Your task to perform on an android device: make emails show in primary in the gmail app Image 0: 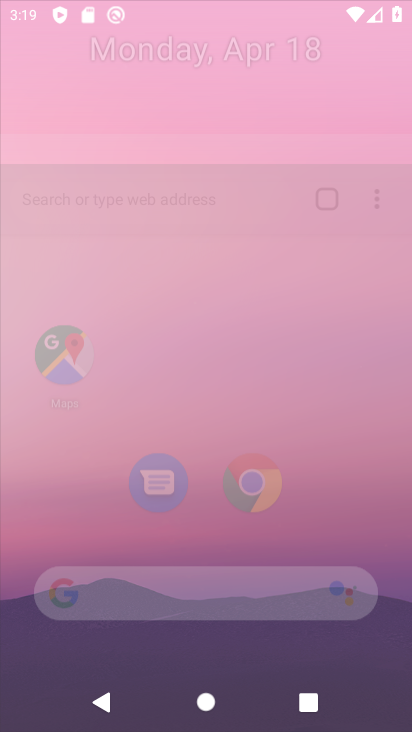
Step 0: click (242, 627)
Your task to perform on an android device: make emails show in primary in the gmail app Image 1: 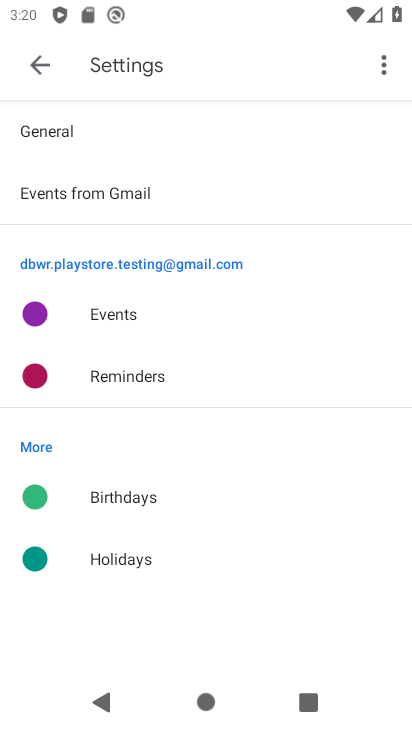
Step 1: press home button
Your task to perform on an android device: make emails show in primary in the gmail app Image 2: 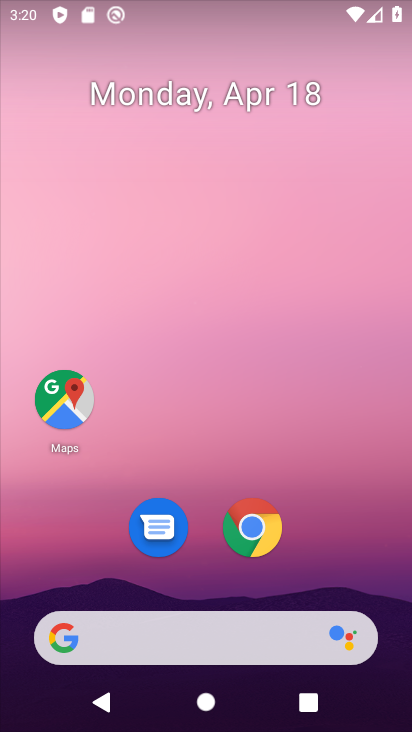
Step 2: drag from (170, 621) to (193, 93)
Your task to perform on an android device: make emails show in primary in the gmail app Image 3: 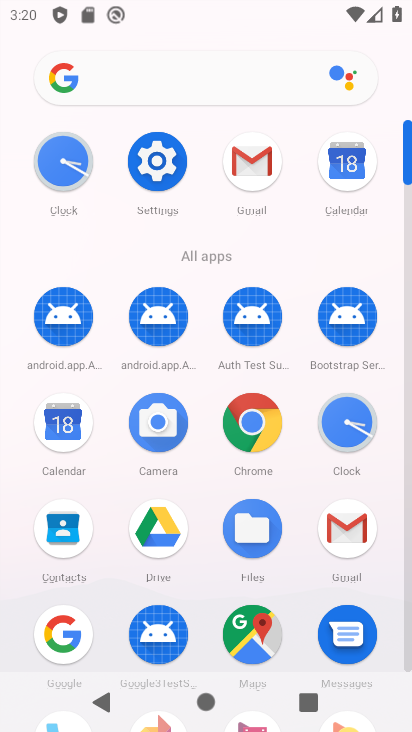
Step 3: click (337, 532)
Your task to perform on an android device: make emails show in primary in the gmail app Image 4: 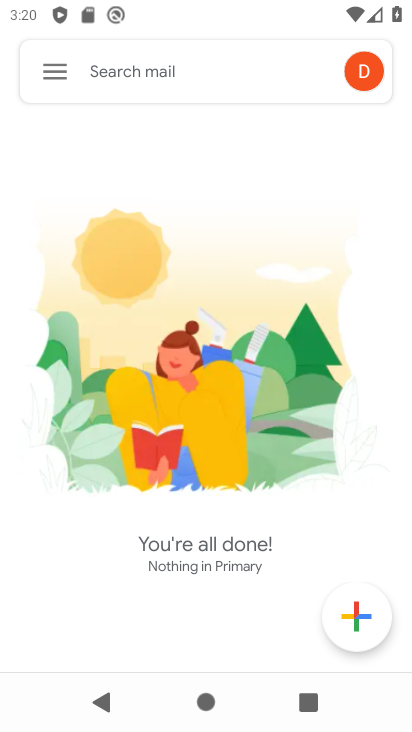
Step 4: click (61, 80)
Your task to perform on an android device: make emails show in primary in the gmail app Image 5: 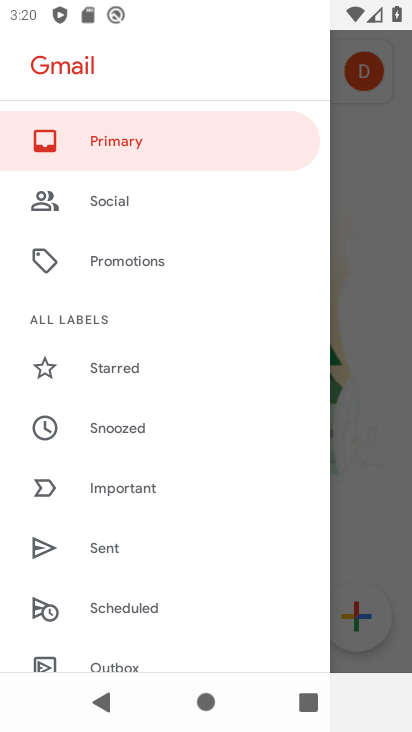
Step 5: drag from (127, 580) to (146, 157)
Your task to perform on an android device: make emails show in primary in the gmail app Image 6: 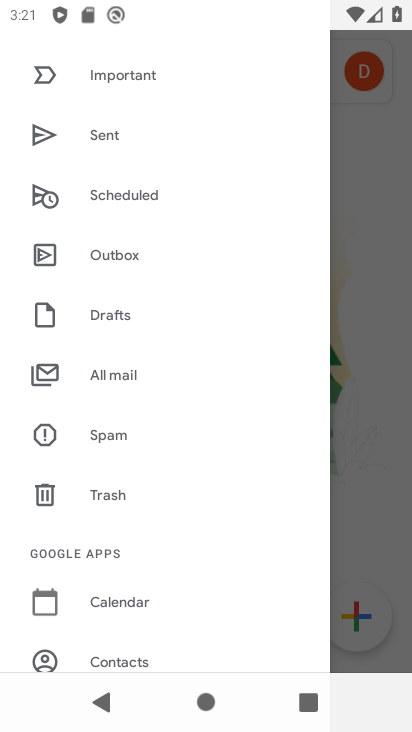
Step 6: drag from (113, 626) to (134, 127)
Your task to perform on an android device: make emails show in primary in the gmail app Image 7: 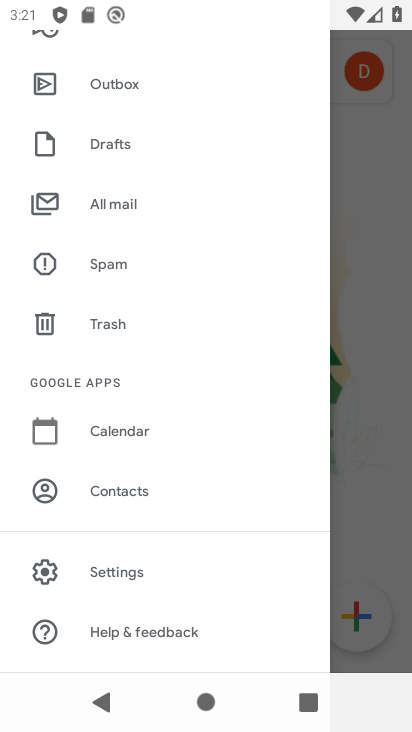
Step 7: click (100, 575)
Your task to perform on an android device: make emails show in primary in the gmail app Image 8: 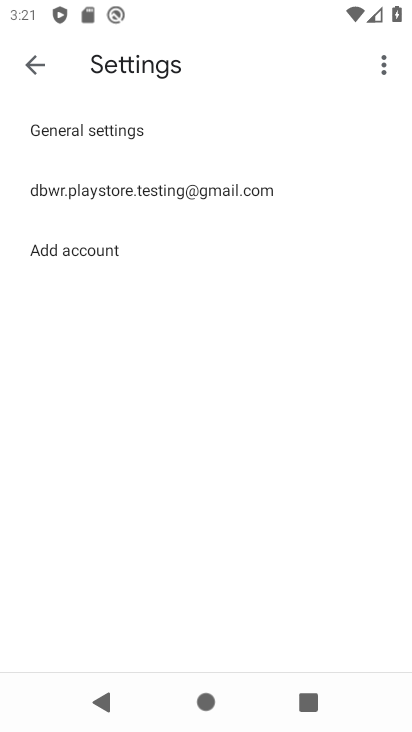
Step 8: click (100, 187)
Your task to perform on an android device: make emails show in primary in the gmail app Image 9: 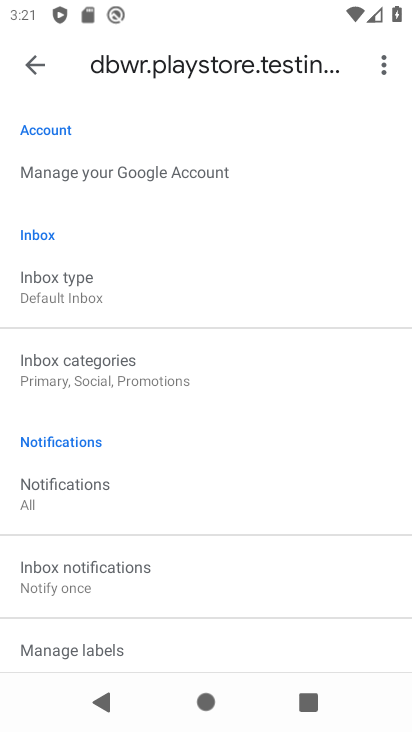
Step 9: click (119, 384)
Your task to perform on an android device: make emails show in primary in the gmail app Image 10: 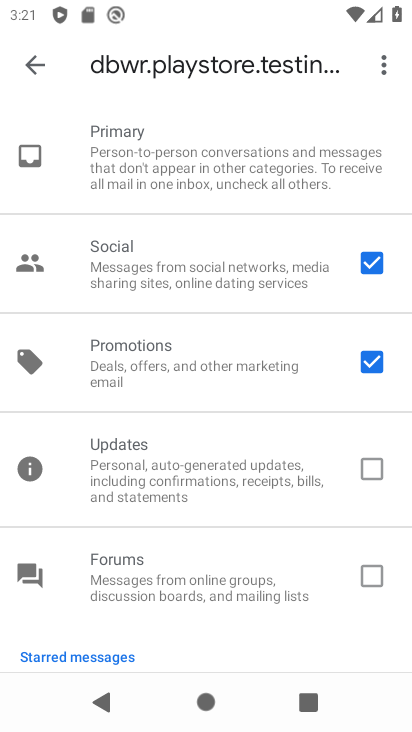
Step 10: click (363, 364)
Your task to perform on an android device: make emails show in primary in the gmail app Image 11: 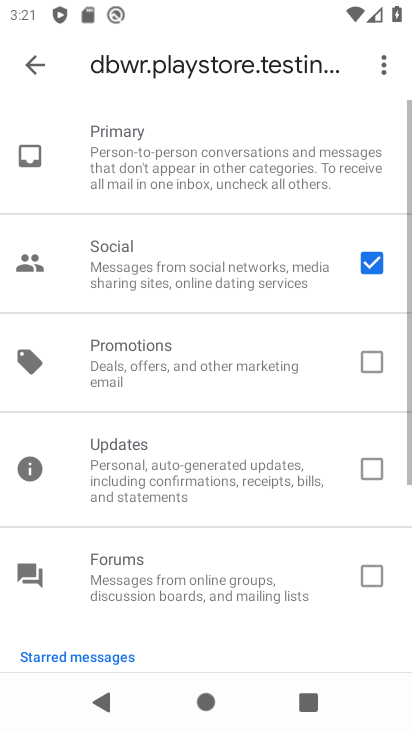
Step 11: click (368, 257)
Your task to perform on an android device: make emails show in primary in the gmail app Image 12: 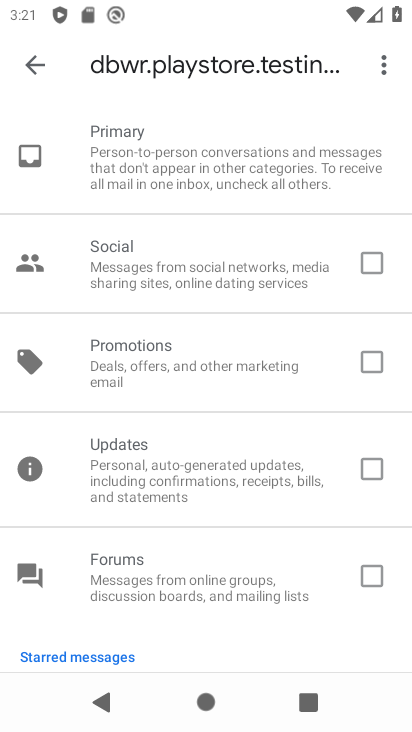
Step 12: task complete